Your task to perform on an android device: What's the weather? Image 0: 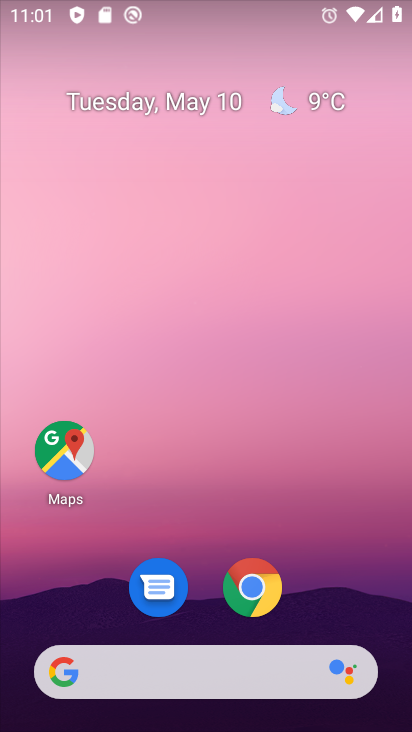
Step 0: click (338, 93)
Your task to perform on an android device: What's the weather? Image 1: 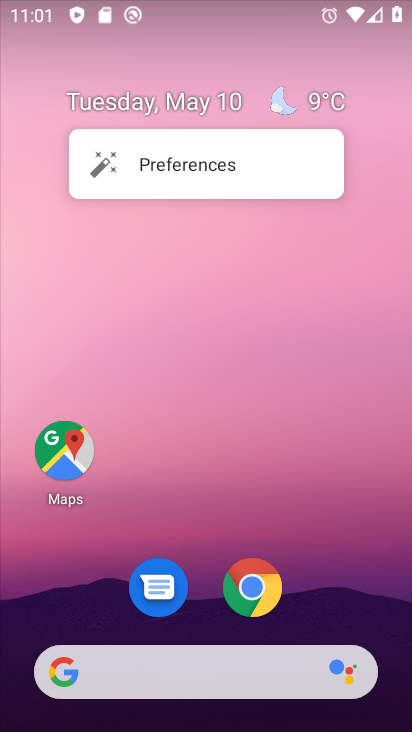
Step 1: click (338, 92)
Your task to perform on an android device: What's the weather? Image 2: 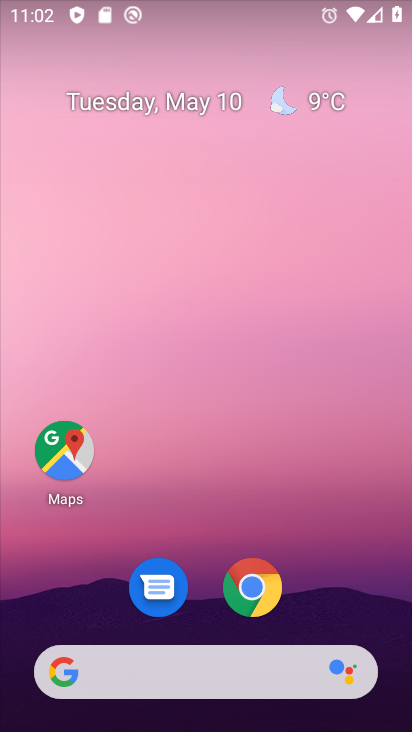
Step 2: click (315, 93)
Your task to perform on an android device: What's the weather? Image 3: 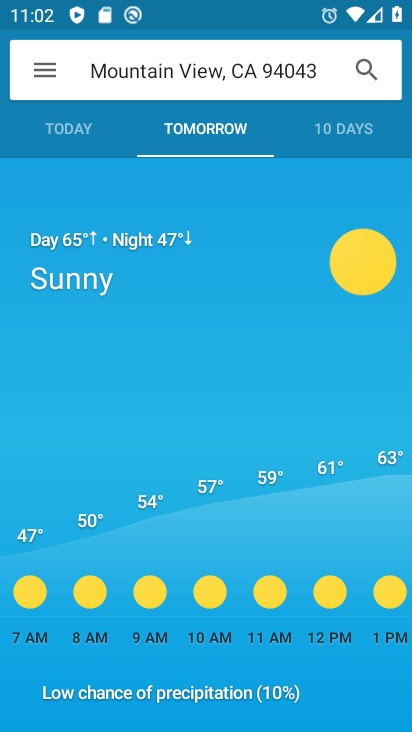
Step 3: task complete